Your task to perform on an android device: empty trash in the gmail app Image 0: 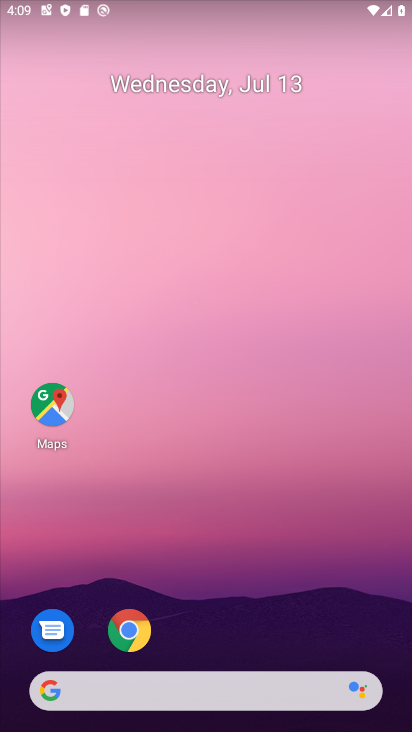
Step 0: drag from (233, 682) to (264, 134)
Your task to perform on an android device: empty trash in the gmail app Image 1: 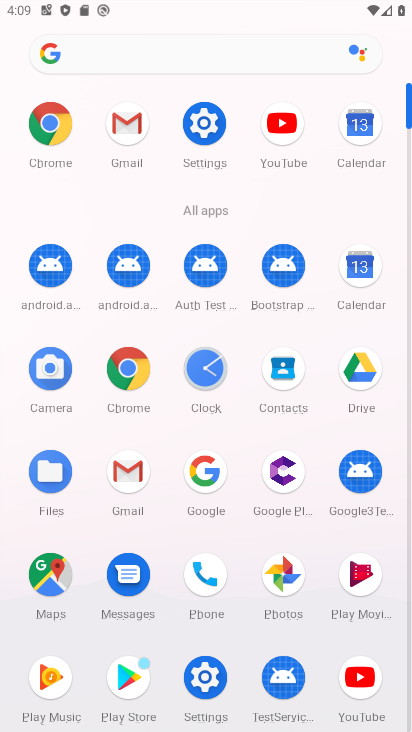
Step 1: click (129, 474)
Your task to perform on an android device: empty trash in the gmail app Image 2: 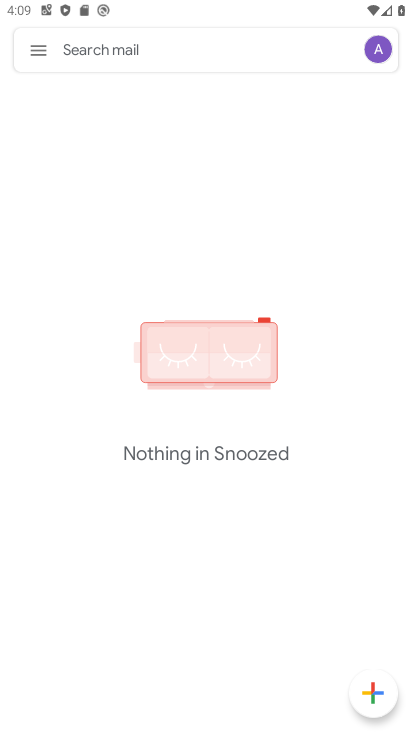
Step 2: click (39, 48)
Your task to perform on an android device: empty trash in the gmail app Image 3: 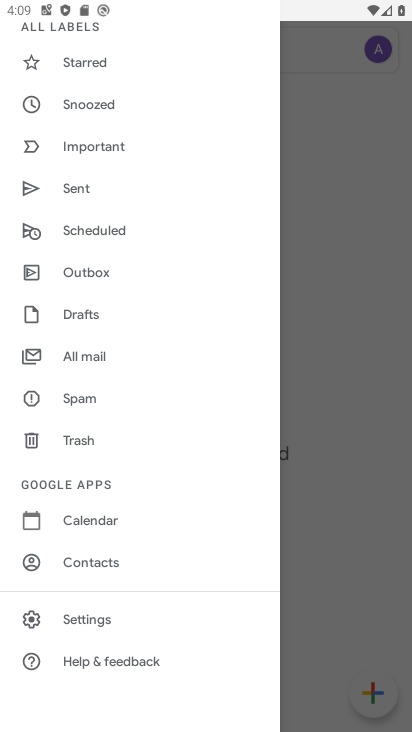
Step 3: click (102, 445)
Your task to perform on an android device: empty trash in the gmail app Image 4: 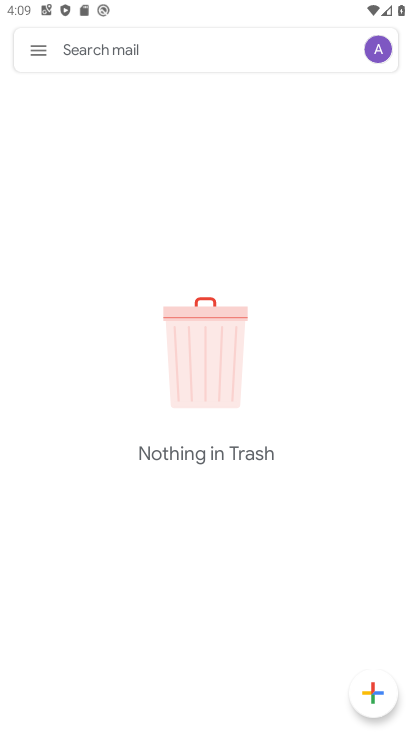
Step 4: task complete